Your task to perform on an android device: Open Youtube and go to "Your channel" Image 0: 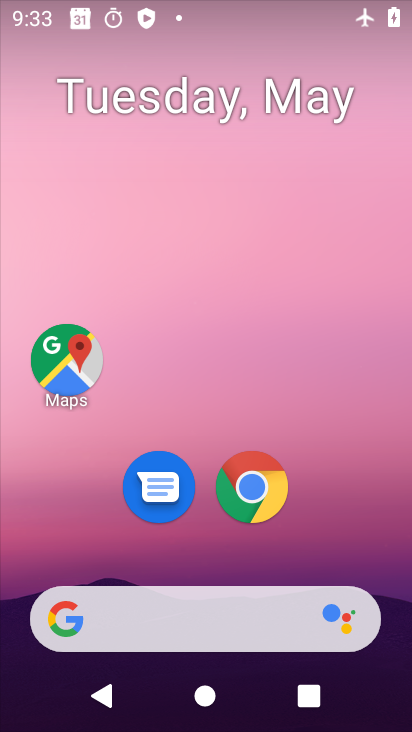
Step 0: drag from (189, 573) to (221, 263)
Your task to perform on an android device: Open Youtube and go to "Your channel" Image 1: 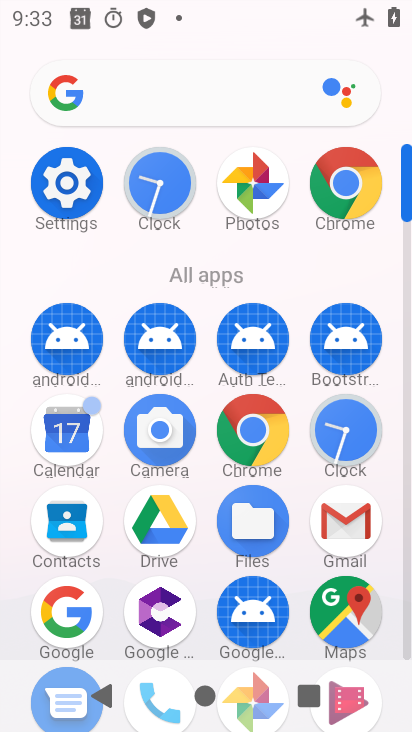
Step 1: drag from (201, 653) to (188, 265)
Your task to perform on an android device: Open Youtube and go to "Your channel" Image 2: 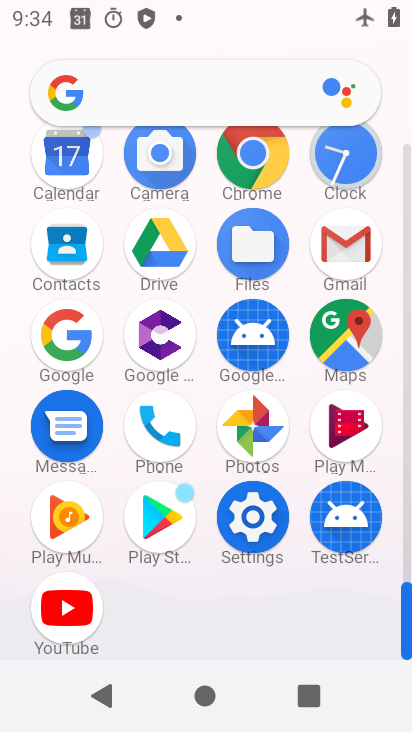
Step 2: click (64, 600)
Your task to perform on an android device: Open Youtube and go to "Your channel" Image 3: 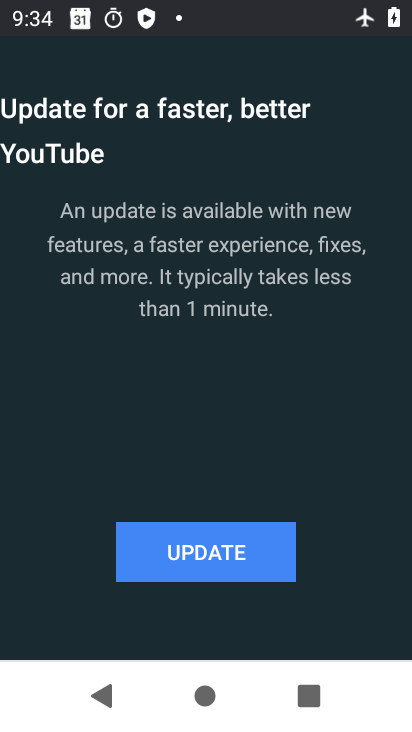
Step 3: click (200, 561)
Your task to perform on an android device: Open Youtube and go to "Your channel" Image 4: 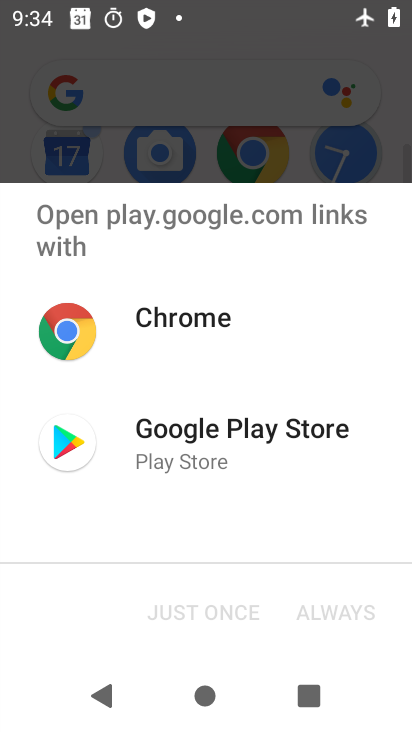
Step 4: click (160, 460)
Your task to perform on an android device: Open Youtube and go to "Your channel" Image 5: 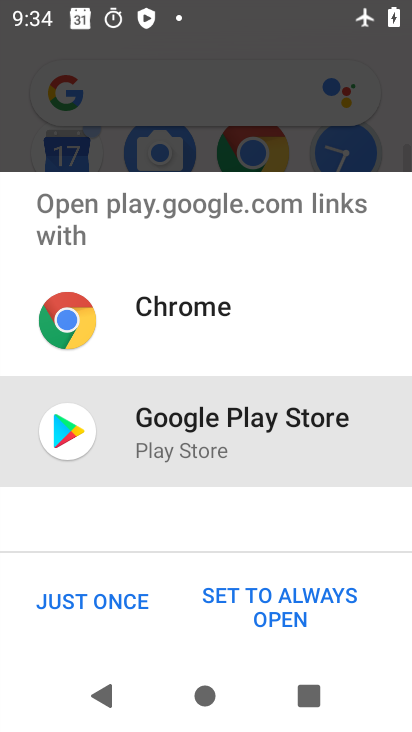
Step 5: click (81, 595)
Your task to perform on an android device: Open Youtube and go to "Your channel" Image 6: 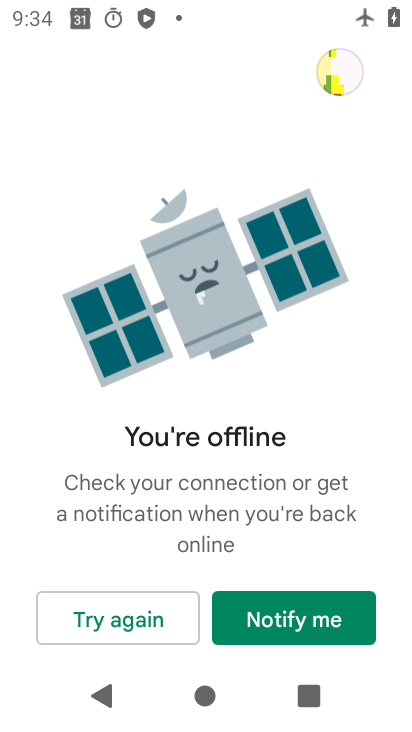
Step 6: click (93, 610)
Your task to perform on an android device: Open Youtube and go to "Your channel" Image 7: 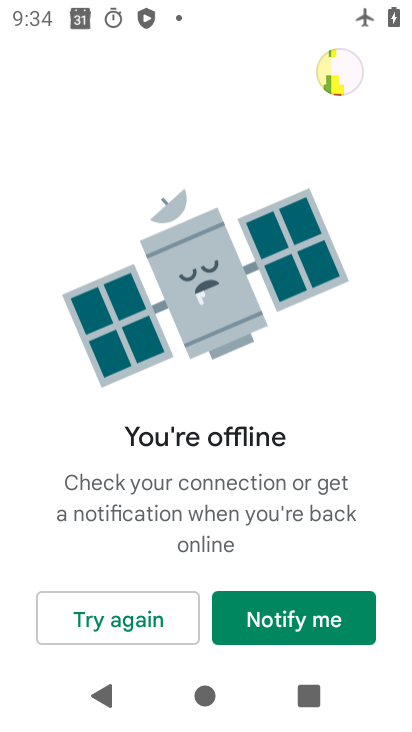
Step 7: task complete